Your task to perform on an android device: Search for pizza restaurants on Maps Image 0: 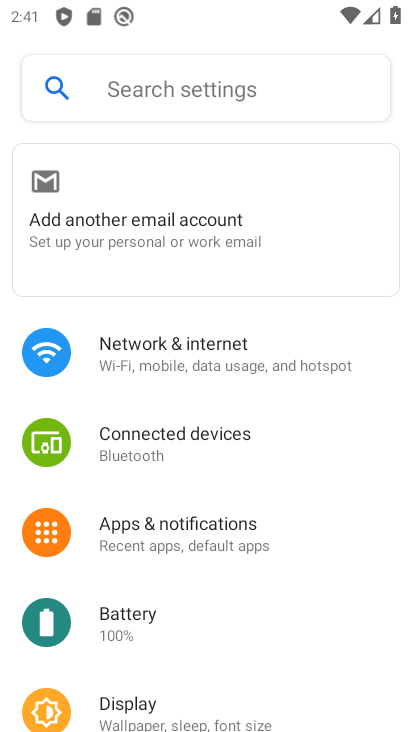
Step 0: press home button
Your task to perform on an android device: Search for pizza restaurants on Maps Image 1: 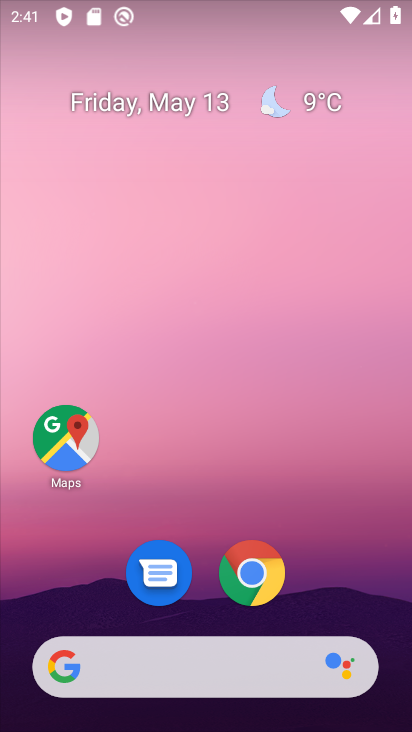
Step 1: click (65, 441)
Your task to perform on an android device: Search for pizza restaurants on Maps Image 2: 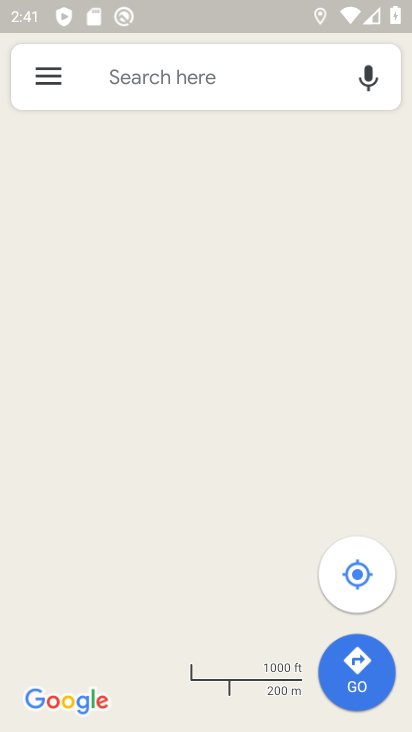
Step 2: click (215, 65)
Your task to perform on an android device: Search for pizza restaurants on Maps Image 3: 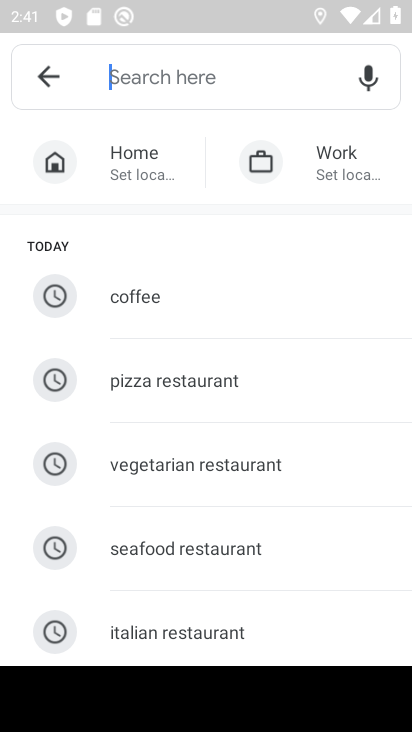
Step 3: type "pizza restaurants"
Your task to perform on an android device: Search for pizza restaurants on Maps Image 4: 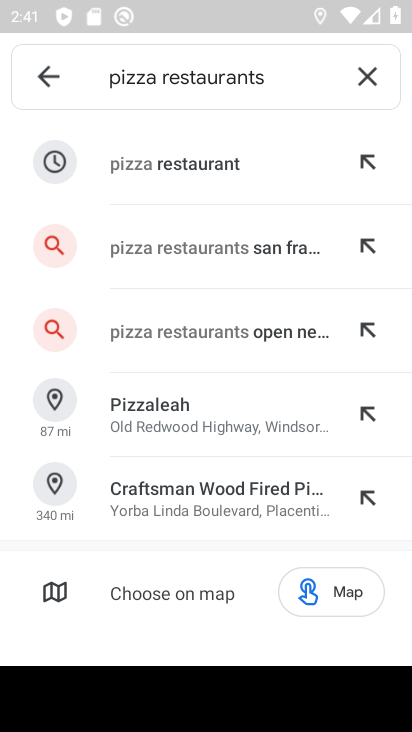
Step 4: click (203, 166)
Your task to perform on an android device: Search for pizza restaurants on Maps Image 5: 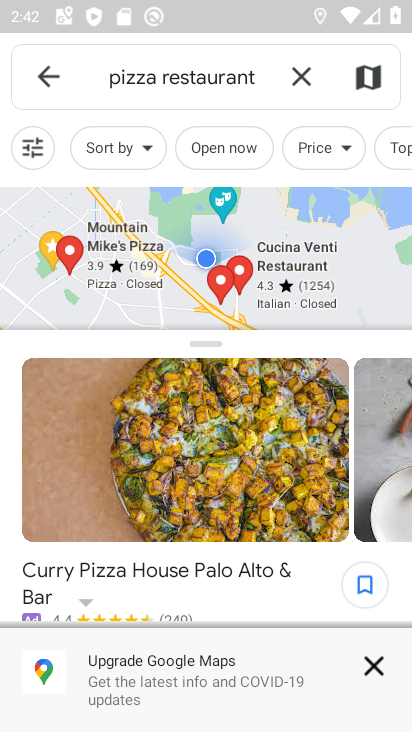
Step 5: task complete